Your task to perform on an android device: What's the weather going to be this weekend? Image 0: 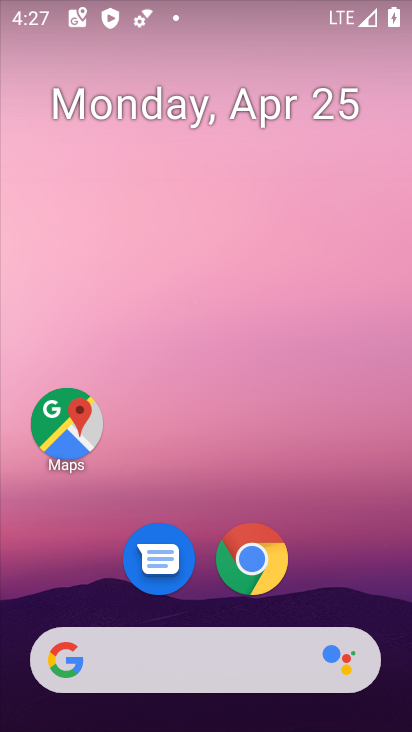
Step 0: drag from (200, 474) to (243, 53)
Your task to perform on an android device: What's the weather going to be this weekend? Image 1: 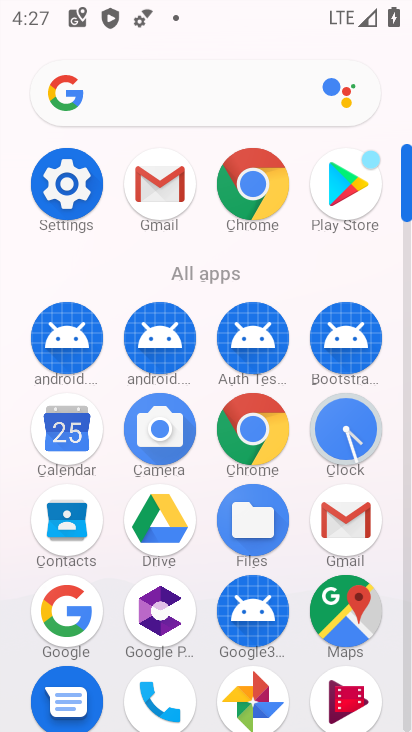
Step 1: click (65, 611)
Your task to perform on an android device: What's the weather going to be this weekend? Image 2: 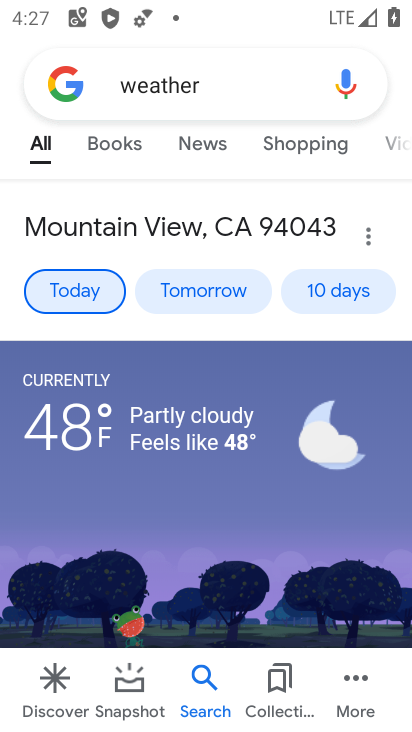
Step 2: click (349, 291)
Your task to perform on an android device: What's the weather going to be this weekend? Image 3: 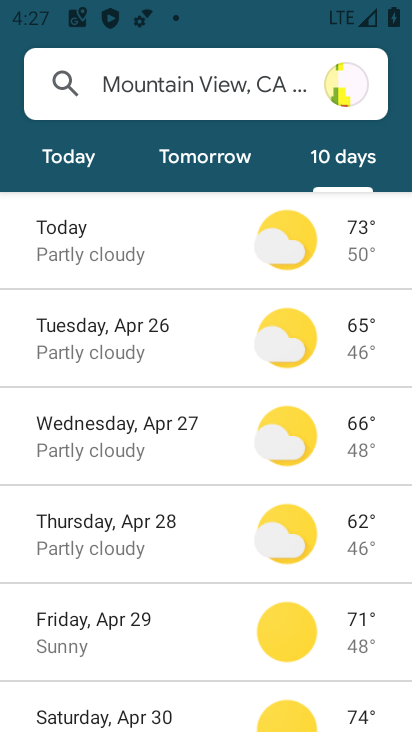
Step 3: task complete